Your task to perform on an android device: toggle notifications settings in the gmail app Image 0: 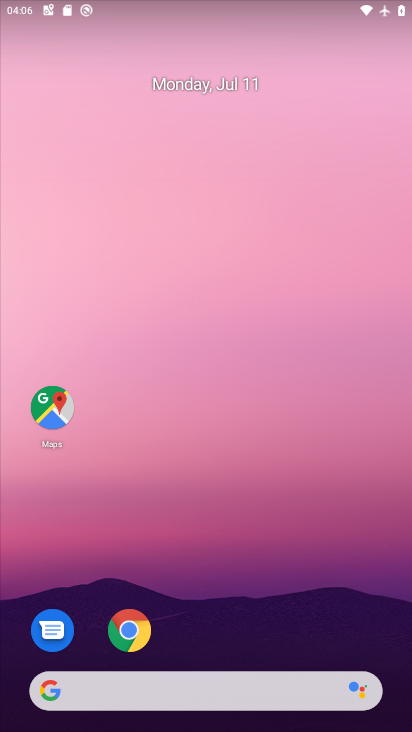
Step 0: click (260, 583)
Your task to perform on an android device: toggle notifications settings in the gmail app Image 1: 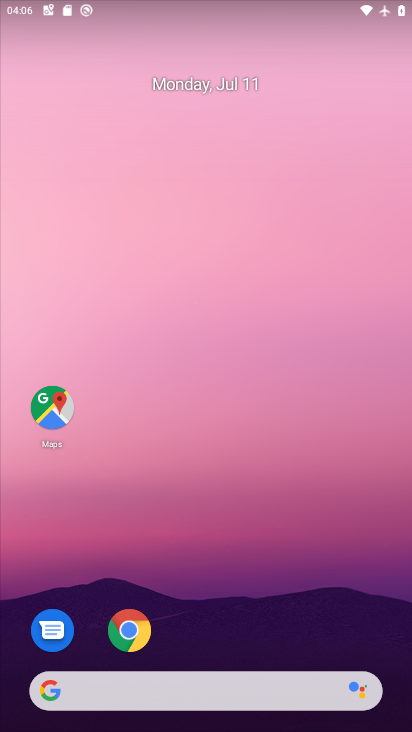
Step 1: drag from (260, 633) to (209, 138)
Your task to perform on an android device: toggle notifications settings in the gmail app Image 2: 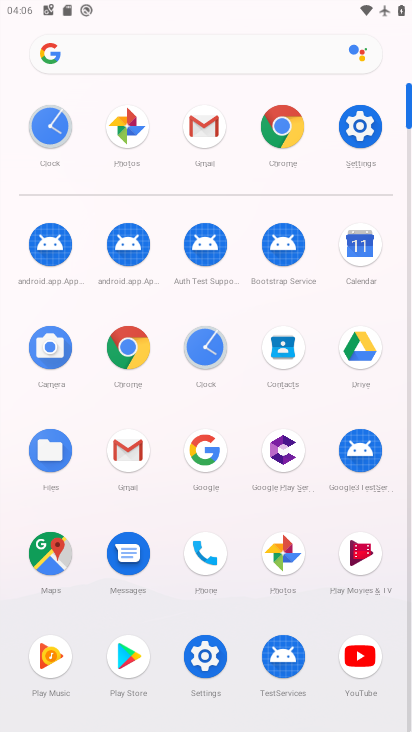
Step 2: click (350, 151)
Your task to perform on an android device: toggle notifications settings in the gmail app Image 3: 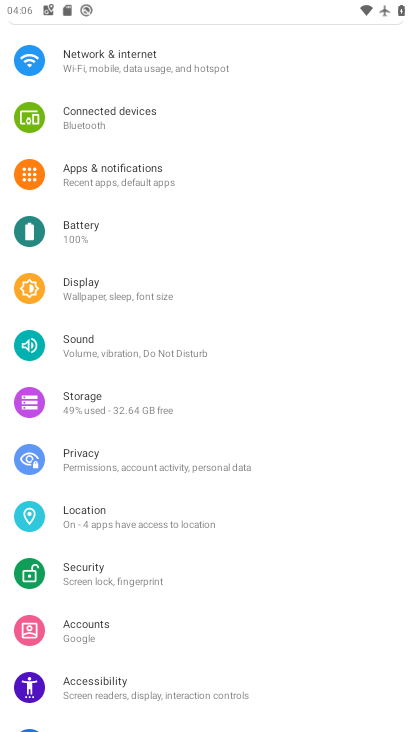
Step 3: click (184, 180)
Your task to perform on an android device: toggle notifications settings in the gmail app Image 4: 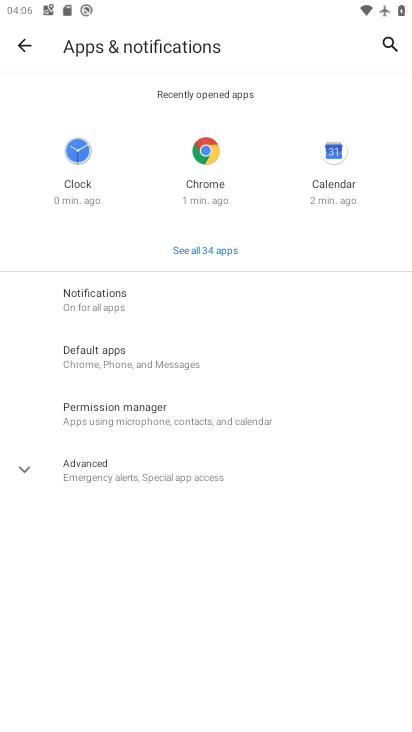
Step 4: task complete